Your task to perform on an android device: Open the stopwatch Image 0: 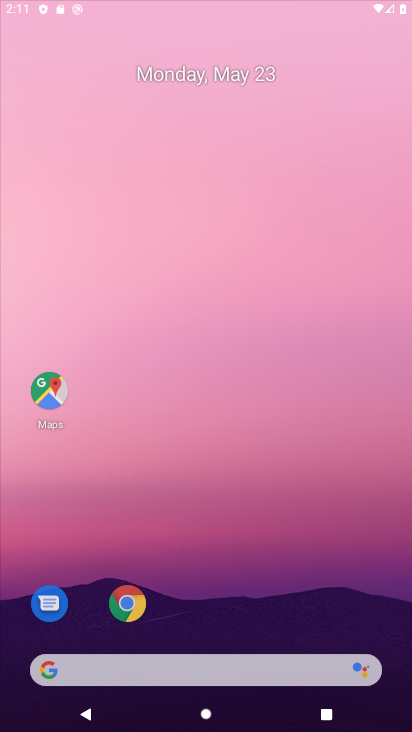
Step 0: drag from (278, 312) to (300, 384)
Your task to perform on an android device: Open the stopwatch Image 1: 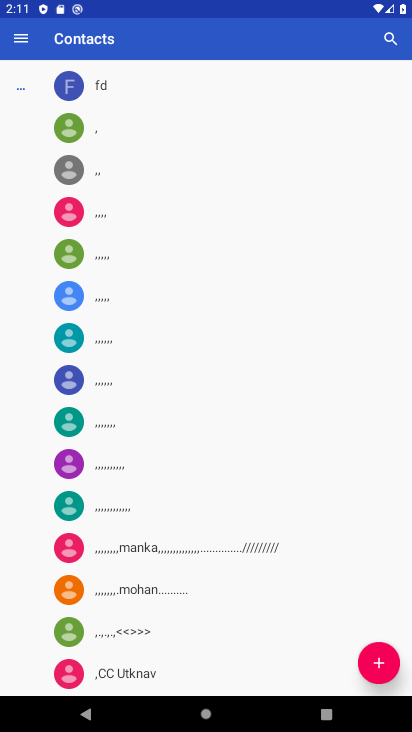
Step 1: press home button
Your task to perform on an android device: Open the stopwatch Image 2: 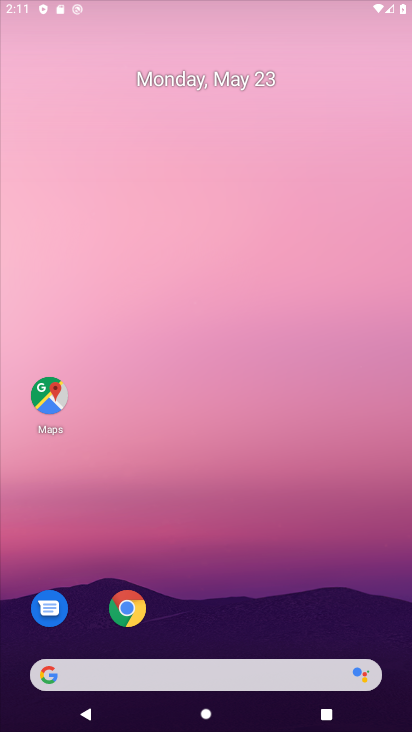
Step 2: click (263, 293)
Your task to perform on an android device: Open the stopwatch Image 3: 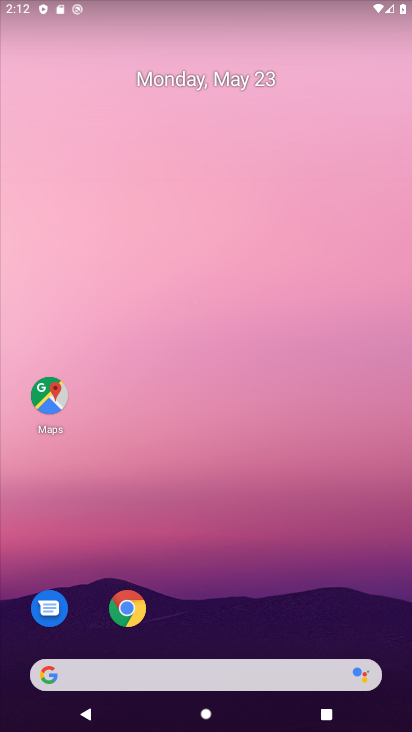
Step 3: drag from (221, 635) to (235, 289)
Your task to perform on an android device: Open the stopwatch Image 4: 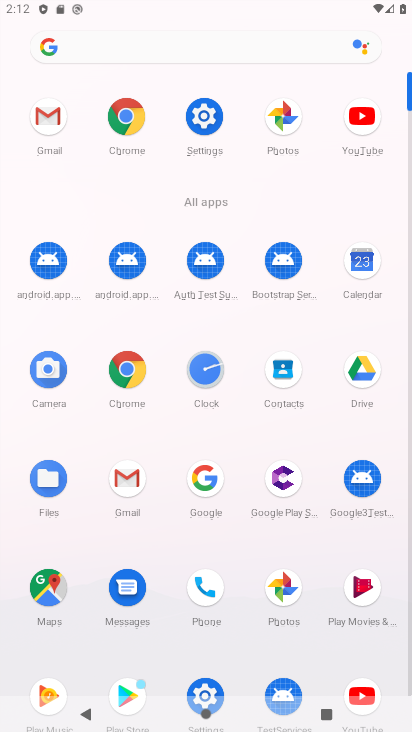
Step 4: click (207, 371)
Your task to perform on an android device: Open the stopwatch Image 5: 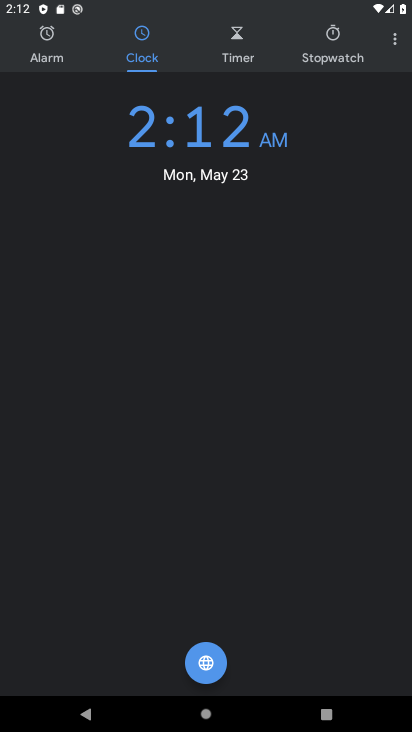
Step 5: click (320, 54)
Your task to perform on an android device: Open the stopwatch Image 6: 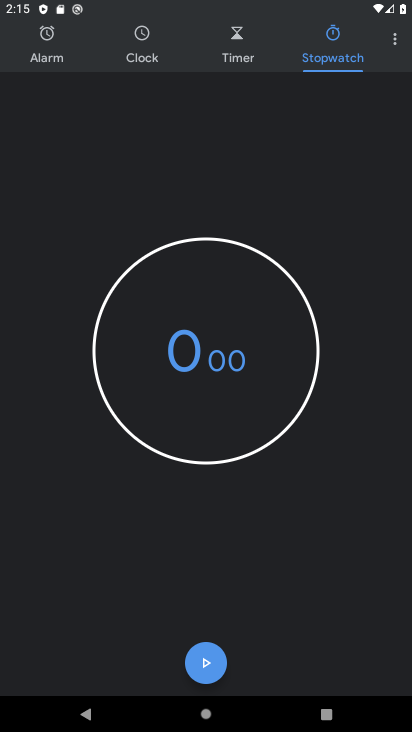
Step 6: task complete